Your task to perform on an android device: Go to internet settings Image 0: 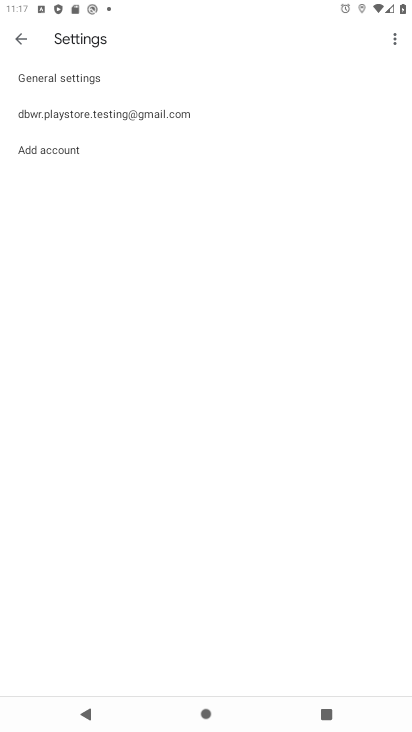
Step 0: press home button
Your task to perform on an android device: Go to internet settings Image 1: 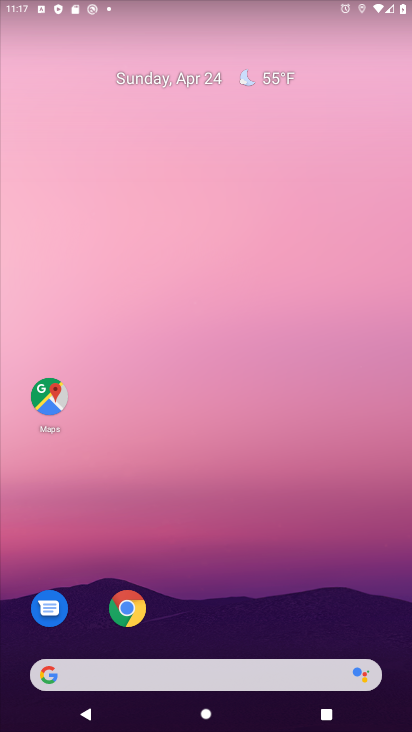
Step 1: drag from (349, 613) to (356, 108)
Your task to perform on an android device: Go to internet settings Image 2: 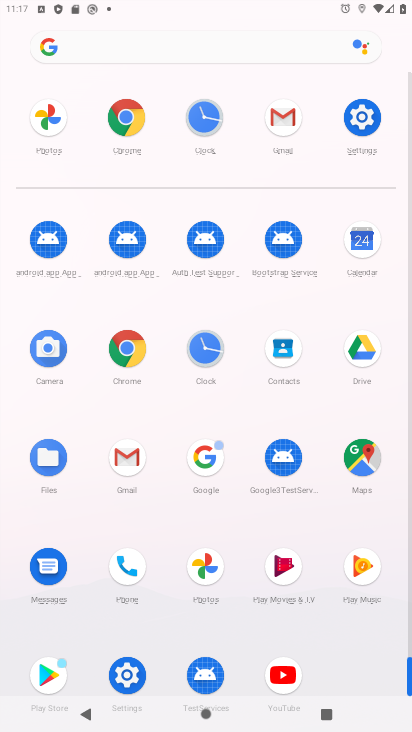
Step 2: click (128, 675)
Your task to perform on an android device: Go to internet settings Image 3: 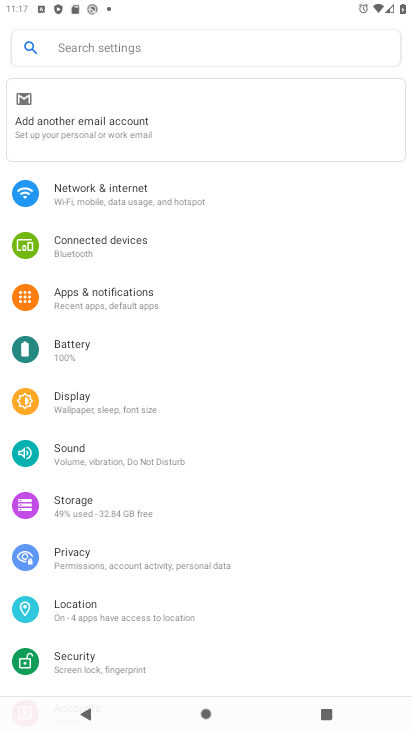
Step 3: click (71, 192)
Your task to perform on an android device: Go to internet settings Image 4: 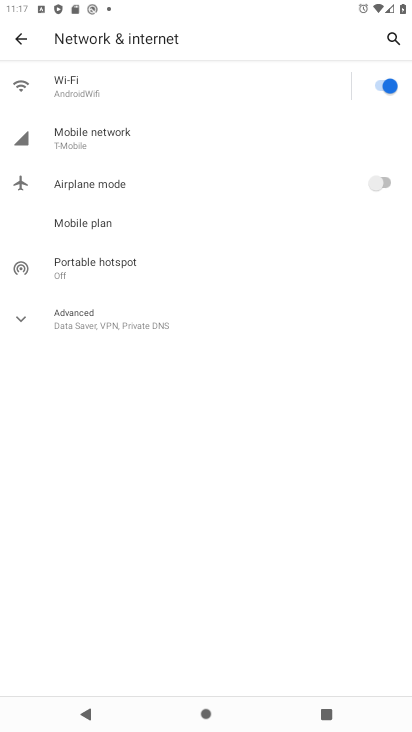
Step 4: click (76, 138)
Your task to perform on an android device: Go to internet settings Image 5: 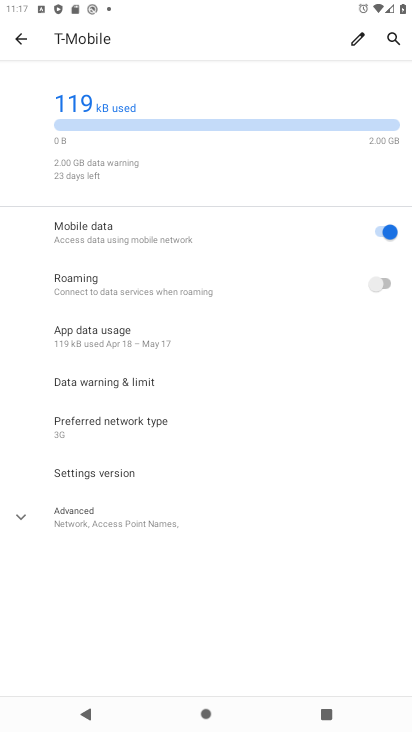
Step 5: click (18, 514)
Your task to perform on an android device: Go to internet settings Image 6: 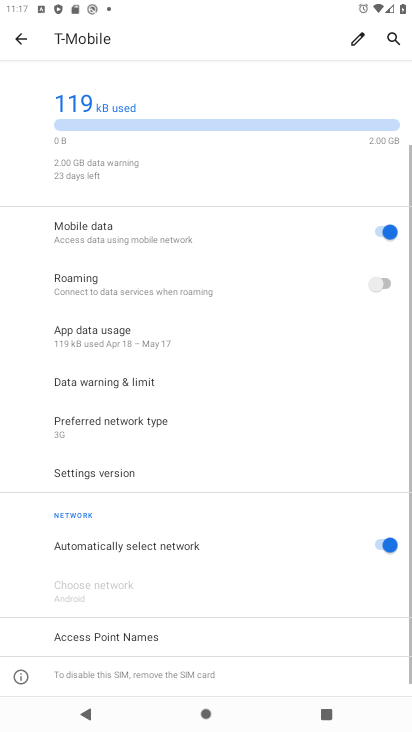
Step 6: task complete